Your task to perform on an android device: What's the weather going to be this weekend? Image 0: 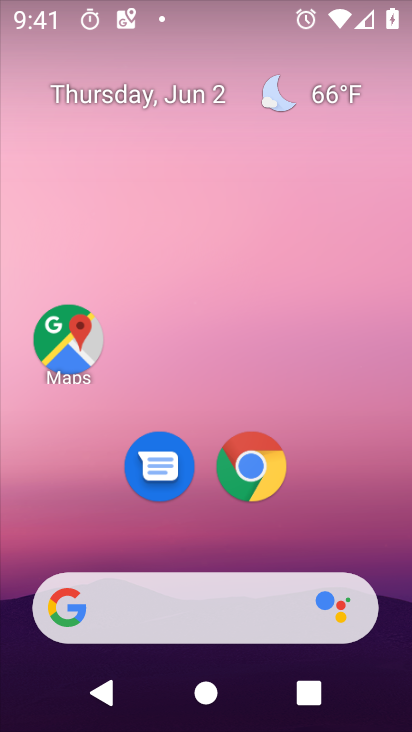
Step 0: click (165, 605)
Your task to perform on an android device: What's the weather going to be this weekend? Image 1: 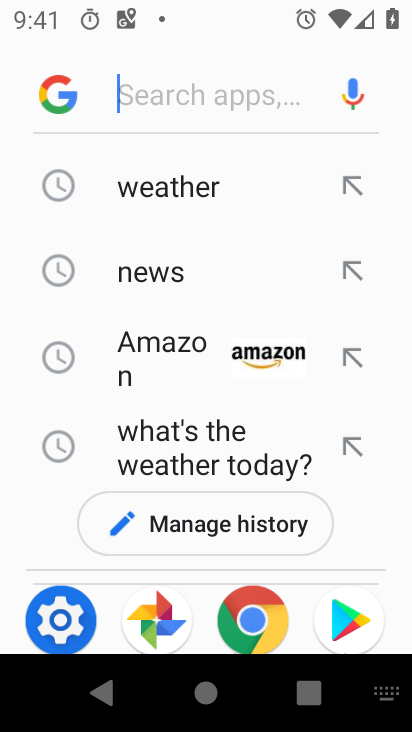
Step 1: click (119, 192)
Your task to perform on an android device: What's the weather going to be this weekend? Image 2: 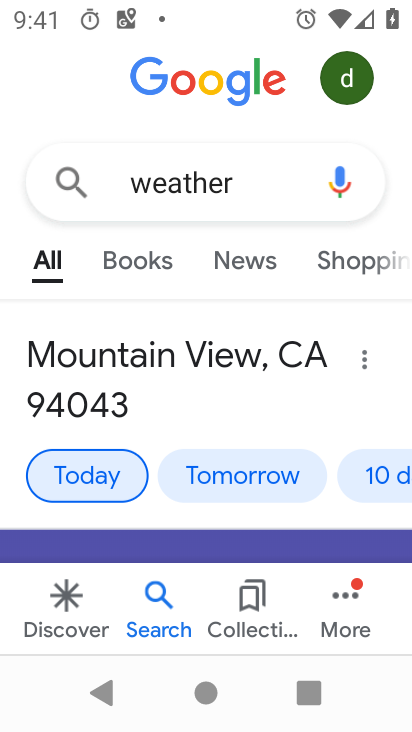
Step 2: click (401, 482)
Your task to perform on an android device: What's the weather going to be this weekend? Image 3: 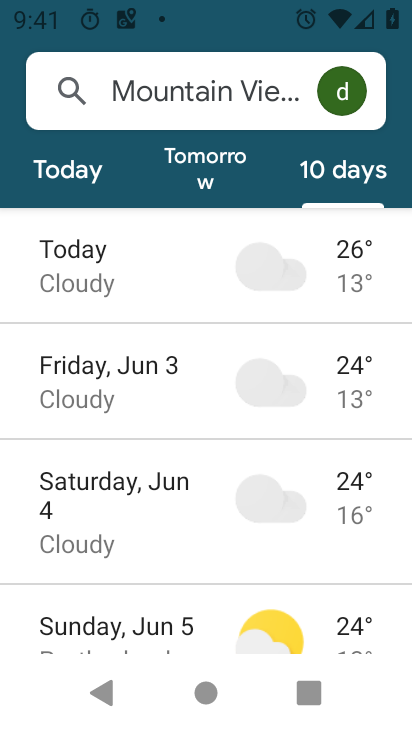
Step 3: task complete